Your task to perform on an android device: read, delete, or share a saved page in the chrome app Image 0: 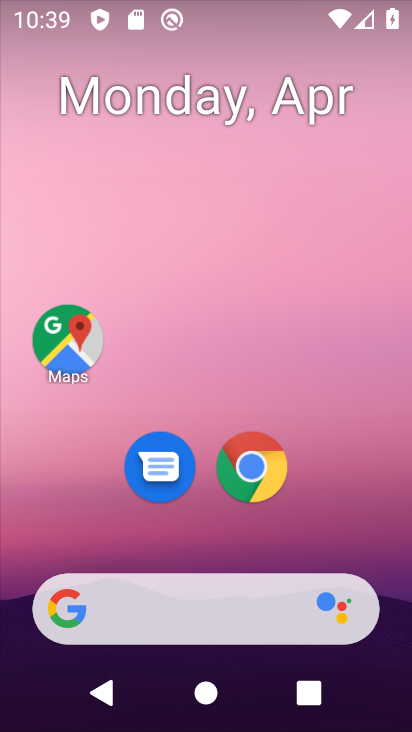
Step 0: click (264, 480)
Your task to perform on an android device: read, delete, or share a saved page in the chrome app Image 1: 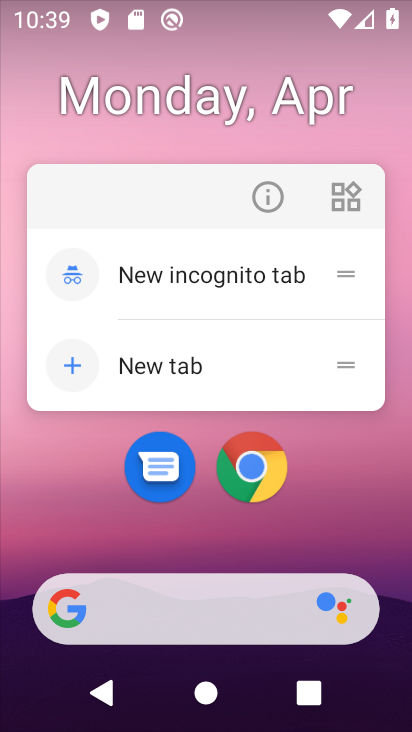
Step 1: click (238, 461)
Your task to perform on an android device: read, delete, or share a saved page in the chrome app Image 2: 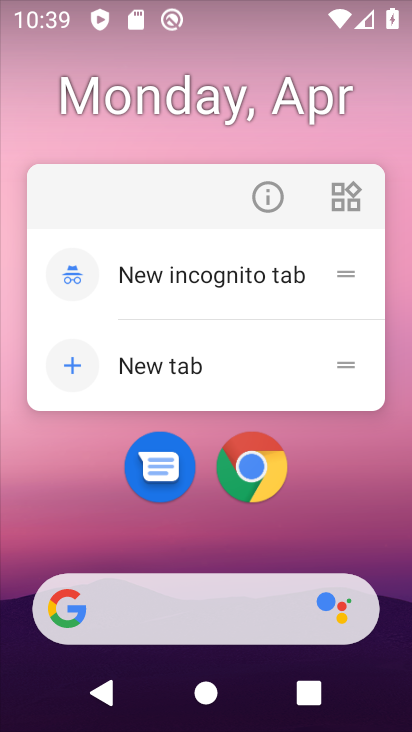
Step 2: click (256, 464)
Your task to perform on an android device: read, delete, or share a saved page in the chrome app Image 3: 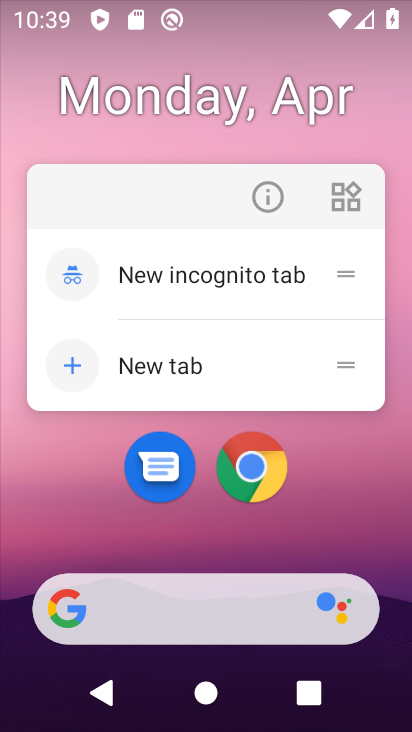
Step 3: click (257, 473)
Your task to perform on an android device: read, delete, or share a saved page in the chrome app Image 4: 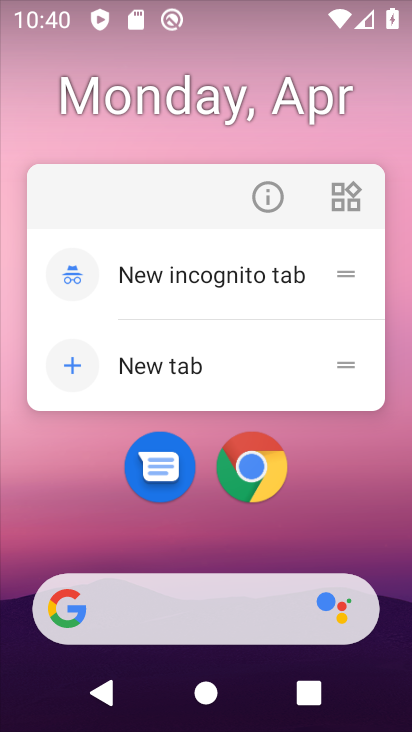
Step 4: click (252, 470)
Your task to perform on an android device: read, delete, or share a saved page in the chrome app Image 5: 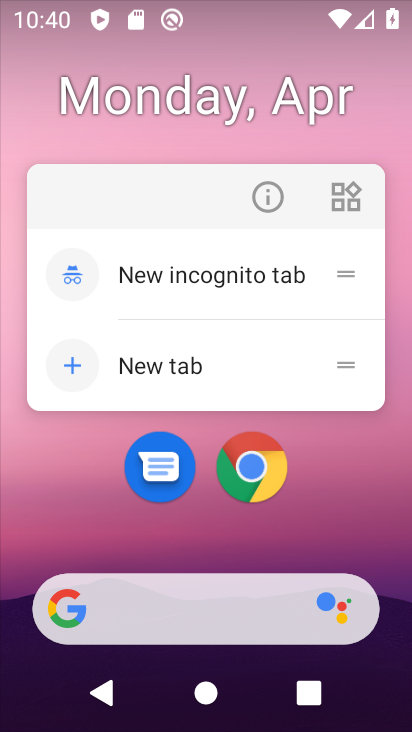
Step 5: click (252, 470)
Your task to perform on an android device: read, delete, or share a saved page in the chrome app Image 6: 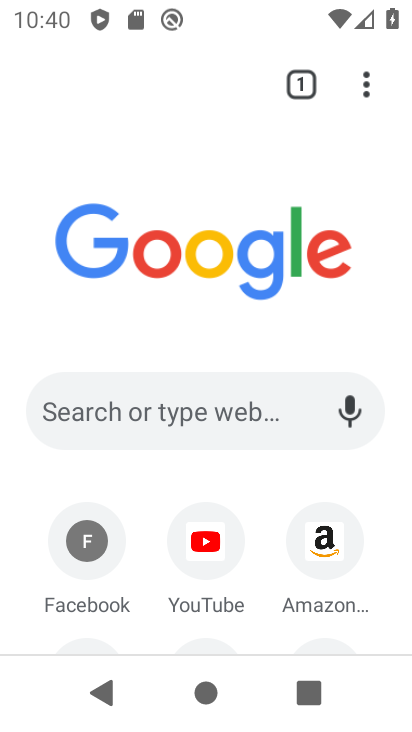
Step 6: click (364, 92)
Your task to perform on an android device: read, delete, or share a saved page in the chrome app Image 7: 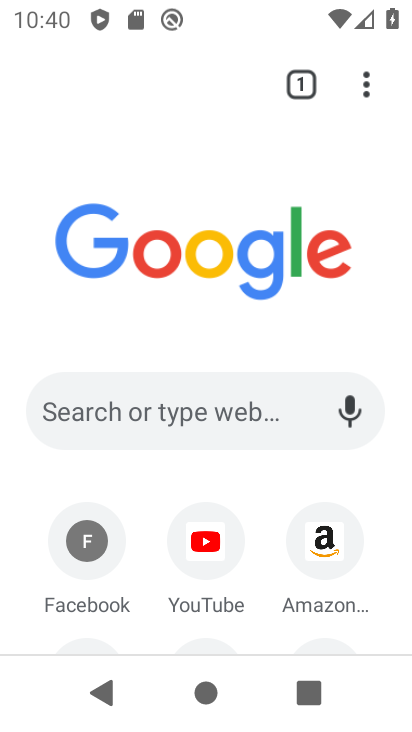
Step 7: click (362, 76)
Your task to perform on an android device: read, delete, or share a saved page in the chrome app Image 8: 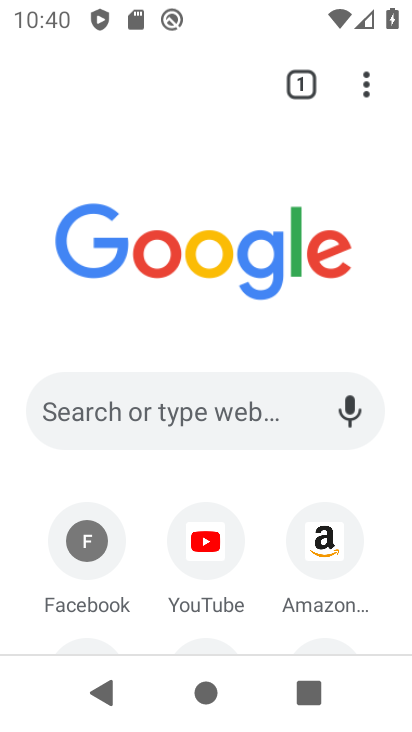
Step 8: click (362, 76)
Your task to perform on an android device: read, delete, or share a saved page in the chrome app Image 9: 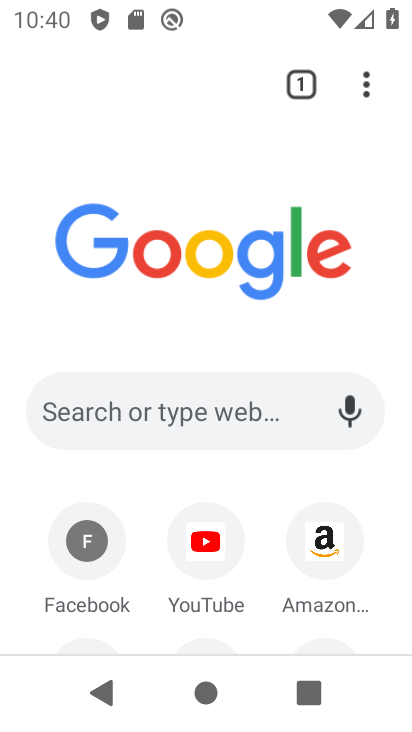
Step 9: click (363, 75)
Your task to perform on an android device: read, delete, or share a saved page in the chrome app Image 10: 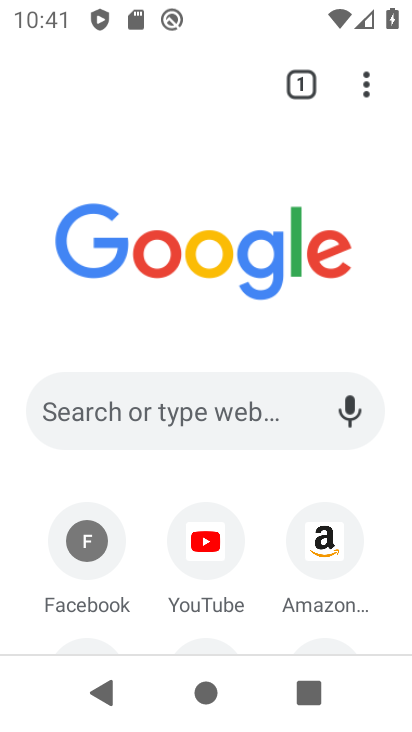
Step 10: click (359, 87)
Your task to perform on an android device: read, delete, or share a saved page in the chrome app Image 11: 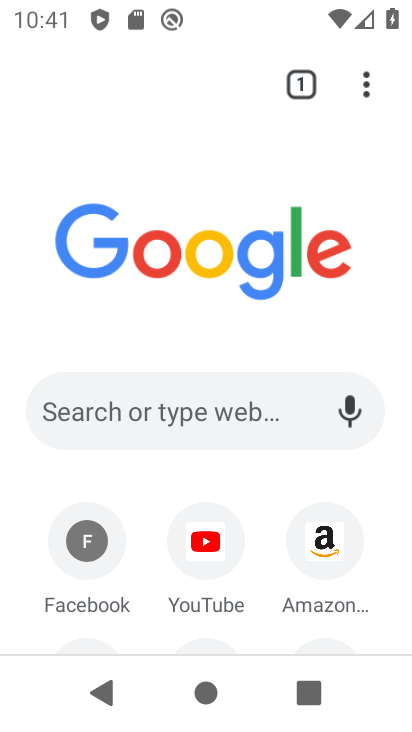
Step 11: click (359, 87)
Your task to perform on an android device: read, delete, or share a saved page in the chrome app Image 12: 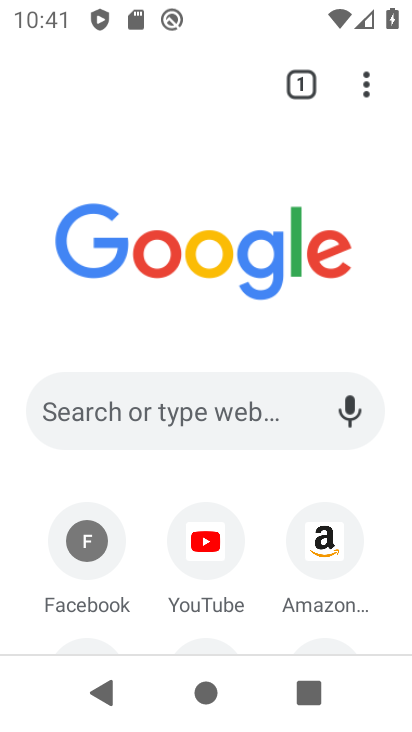
Step 12: click (359, 87)
Your task to perform on an android device: read, delete, or share a saved page in the chrome app Image 13: 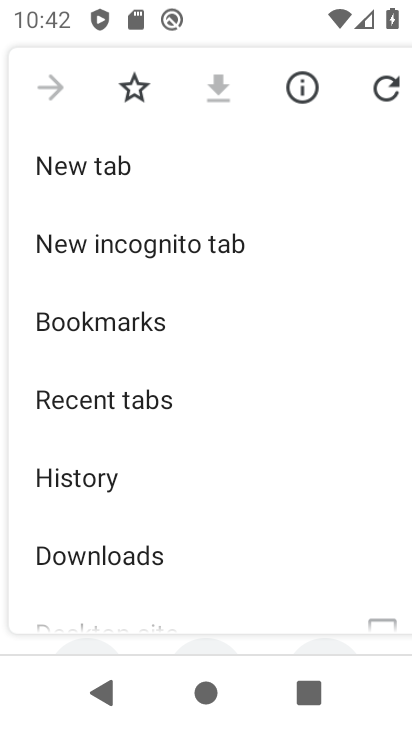
Step 13: click (148, 557)
Your task to perform on an android device: read, delete, or share a saved page in the chrome app Image 14: 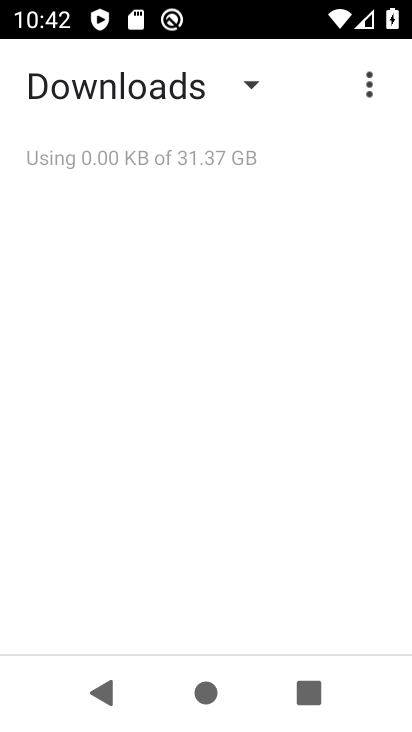
Step 14: click (192, 82)
Your task to perform on an android device: read, delete, or share a saved page in the chrome app Image 15: 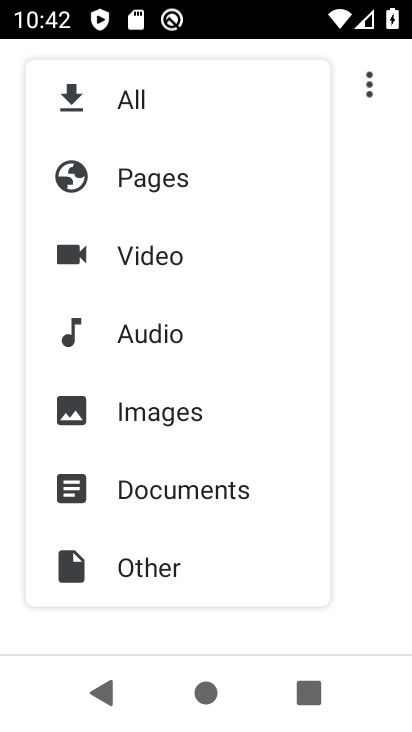
Step 15: click (184, 175)
Your task to perform on an android device: read, delete, or share a saved page in the chrome app Image 16: 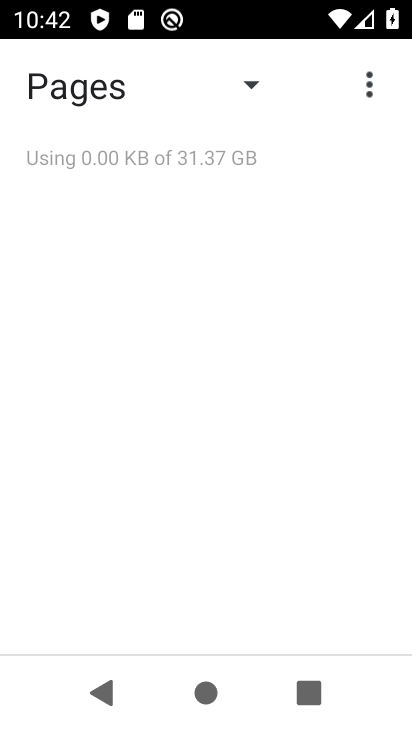
Step 16: task complete